Your task to perform on an android device: Open Google Chrome and open the bookmarks view Image 0: 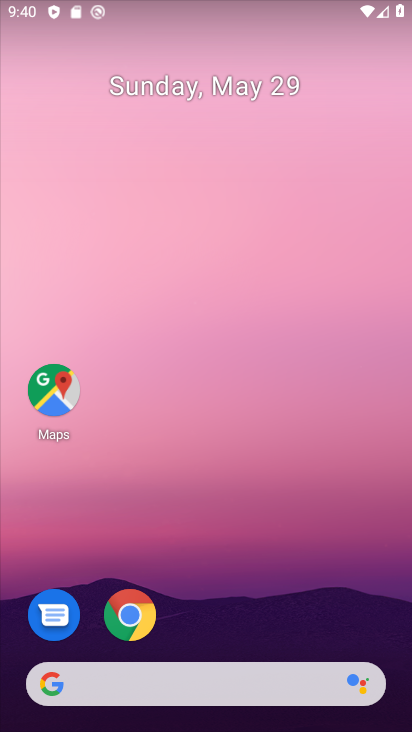
Step 0: click (136, 611)
Your task to perform on an android device: Open Google Chrome and open the bookmarks view Image 1: 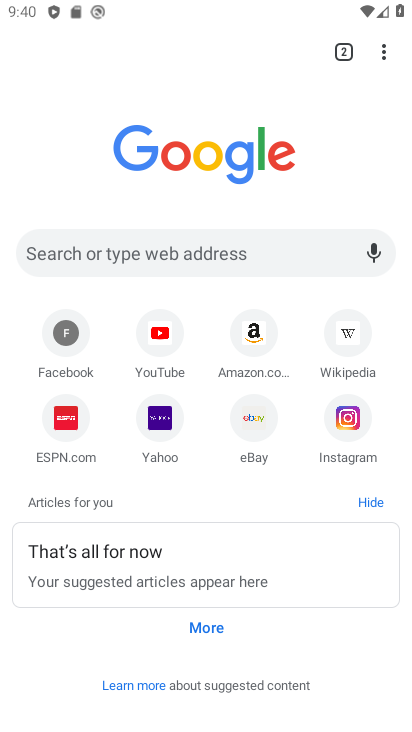
Step 1: click (379, 50)
Your task to perform on an android device: Open Google Chrome and open the bookmarks view Image 2: 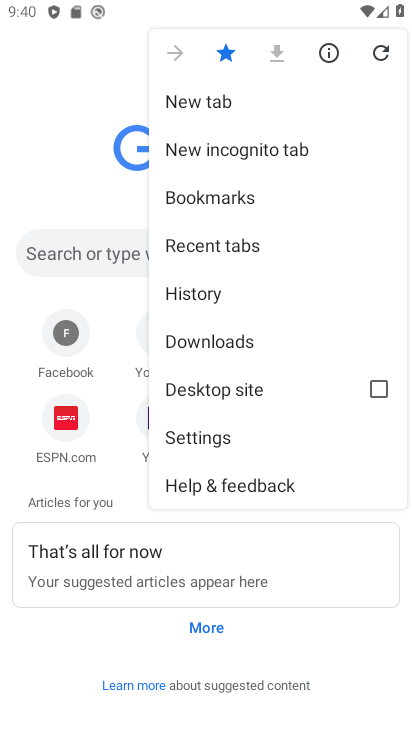
Step 2: click (208, 194)
Your task to perform on an android device: Open Google Chrome and open the bookmarks view Image 3: 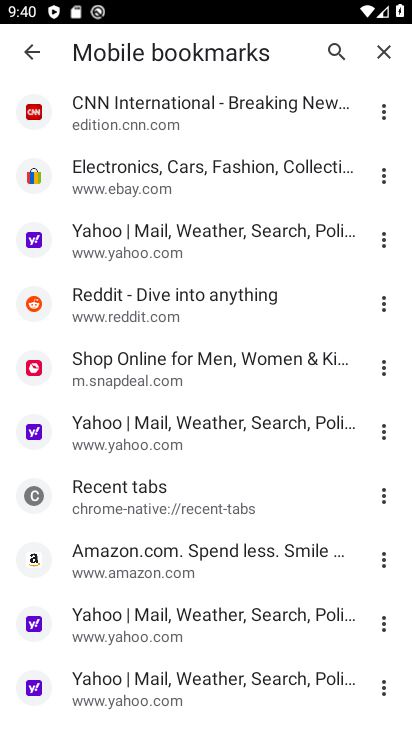
Step 3: task complete